Your task to perform on an android device: Search for Mexican restaurants on Maps Image 0: 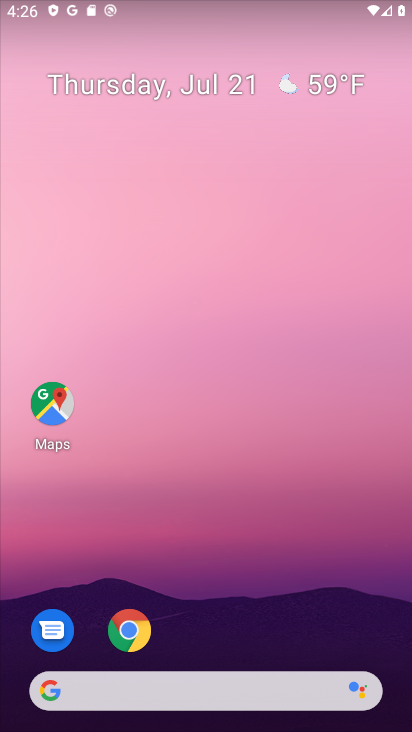
Step 0: drag from (201, 595) to (120, 146)
Your task to perform on an android device: Search for Mexican restaurants on Maps Image 1: 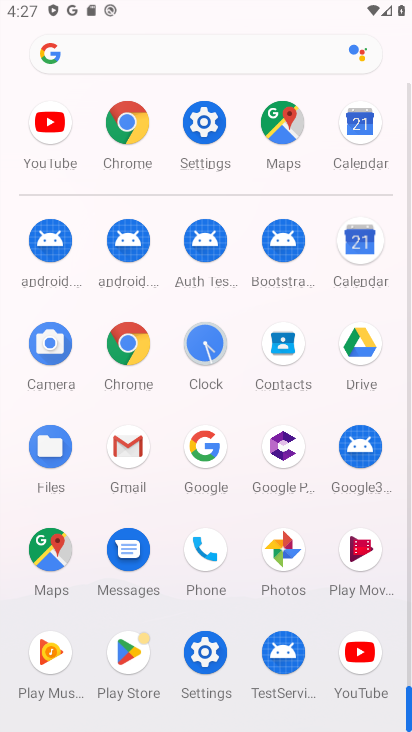
Step 1: click (279, 130)
Your task to perform on an android device: Search for Mexican restaurants on Maps Image 2: 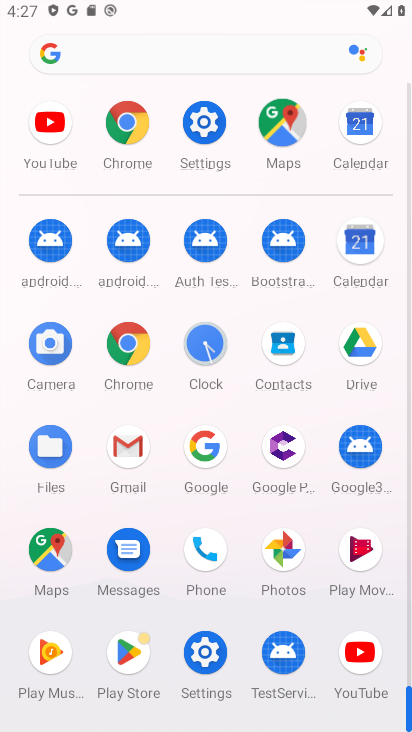
Step 2: click (276, 123)
Your task to perform on an android device: Search for Mexican restaurants on Maps Image 3: 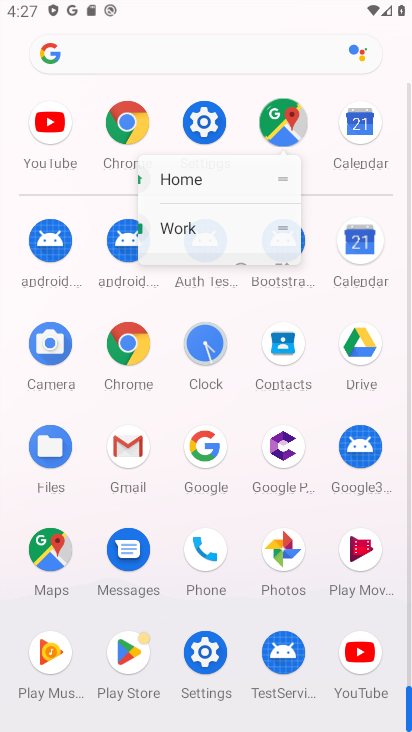
Step 3: click (272, 130)
Your task to perform on an android device: Search for Mexican restaurants on Maps Image 4: 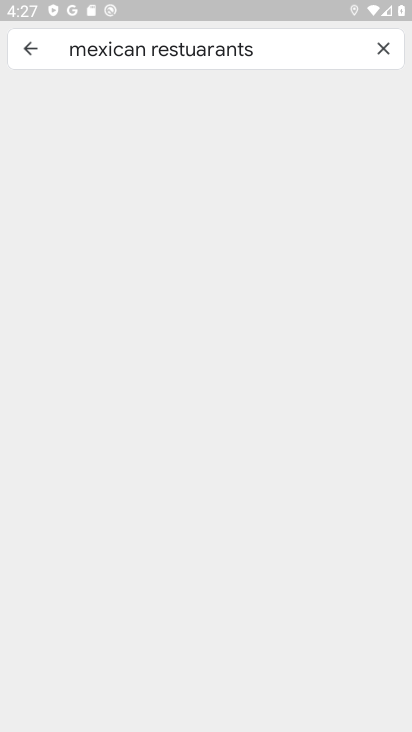
Step 4: click (284, 54)
Your task to perform on an android device: Search for Mexican restaurants on Maps Image 5: 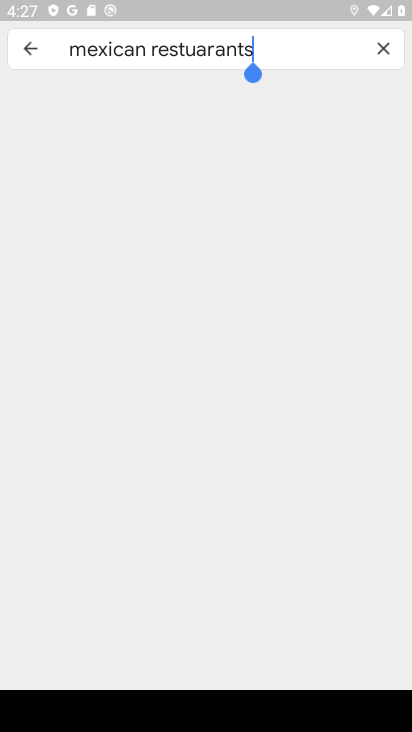
Step 5: task complete